Your task to perform on an android device: change the clock style Image 0: 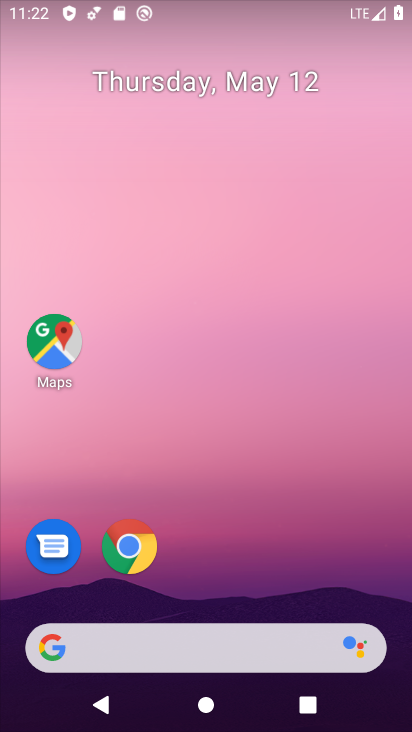
Step 0: drag from (233, 534) to (212, 100)
Your task to perform on an android device: change the clock style Image 1: 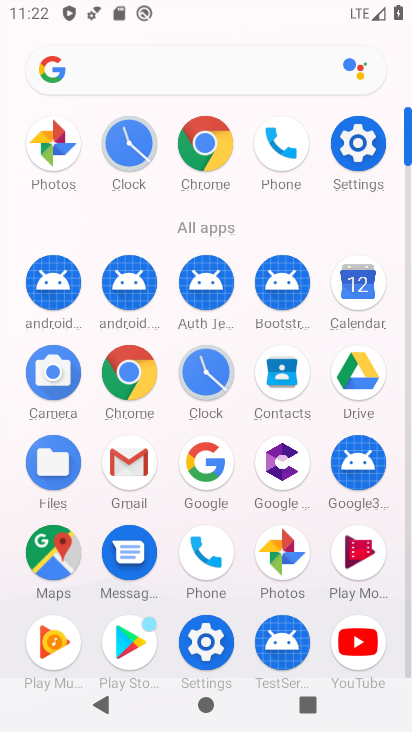
Step 1: click (207, 377)
Your task to perform on an android device: change the clock style Image 2: 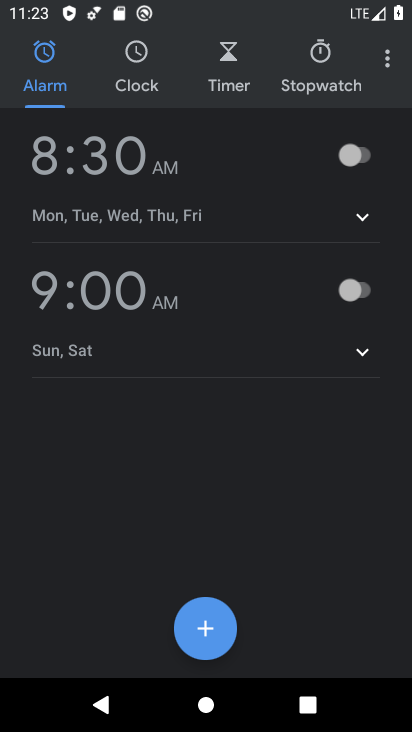
Step 2: click (396, 54)
Your task to perform on an android device: change the clock style Image 3: 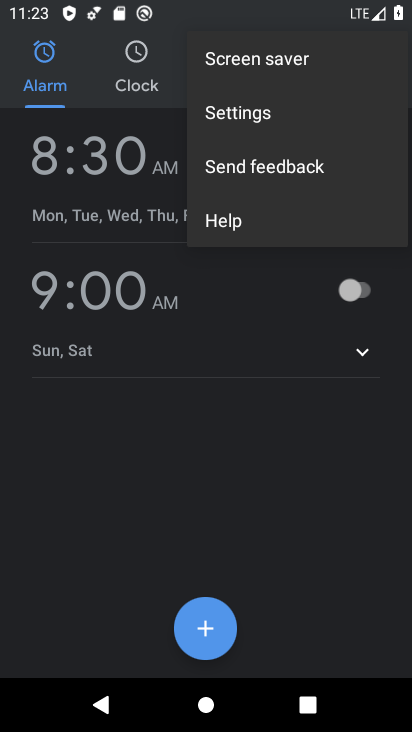
Step 3: click (271, 118)
Your task to perform on an android device: change the clock style Image 4: 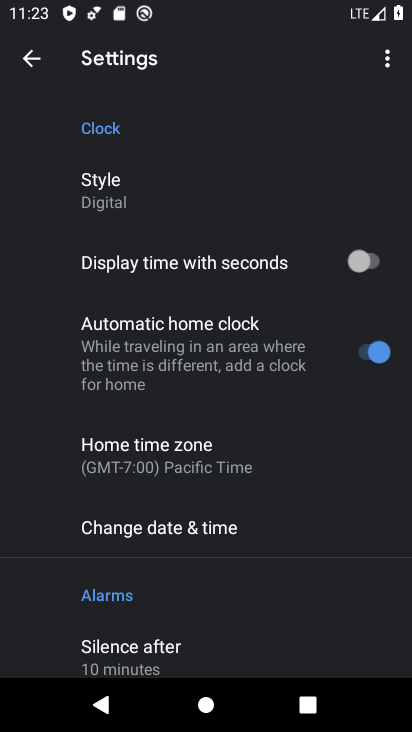
Step 4: click (102, 209)
Your task to perform on an android device: change the clock style Image 5: 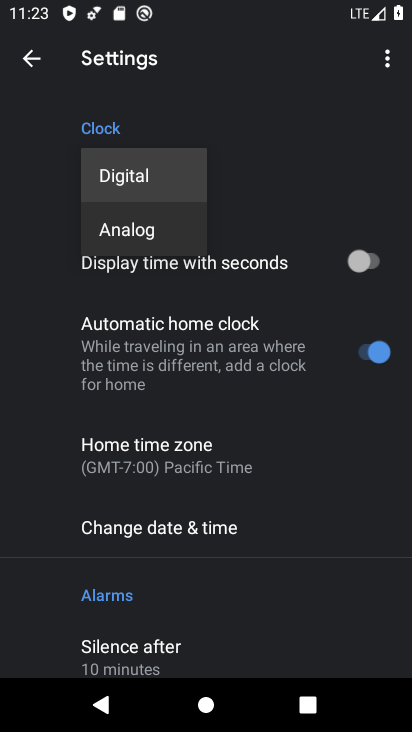
Step 5: click (138, 224)
Your task to perform on an android device: change the clock style Image 6: 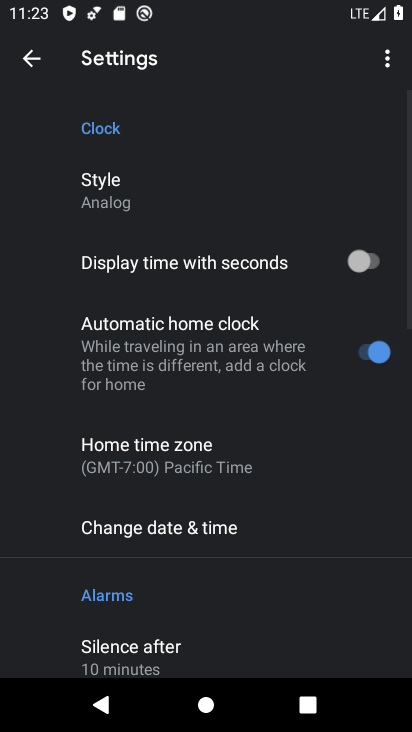
Step 6: task complete